Your task to perform on an android device: Open internet settings Image 0: 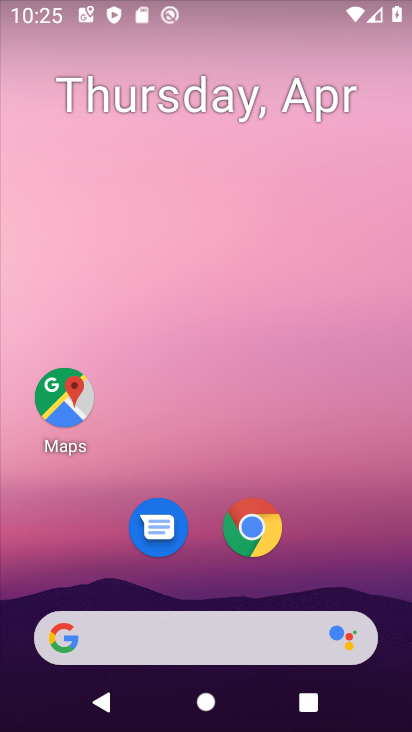
Step 0: drag from (331, 533) to (345, 90)
Your task to perform on an android device: Open internet settings Image 1: 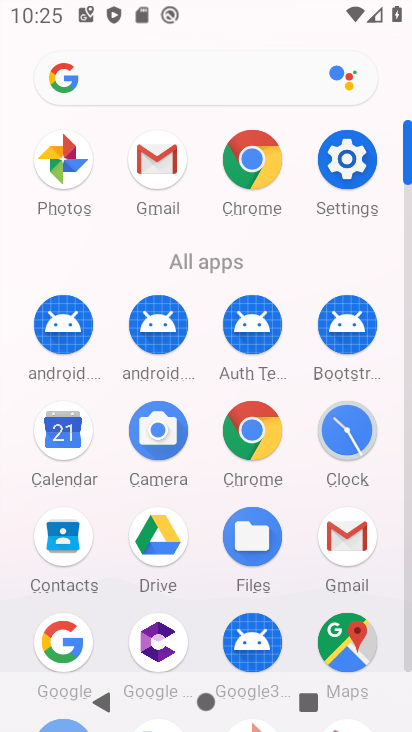
Step 1: click (348, 167)
Your task to perform on an android device: Open internet settings Image 2: 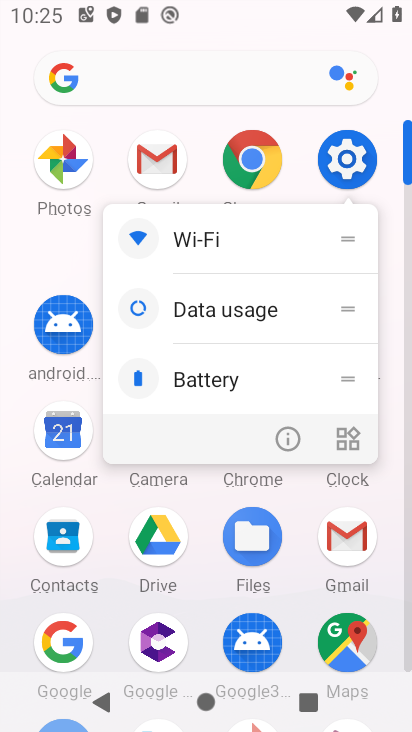
Step 2: click (348, 167)
Your task to perform on an android device: Open internet settings Image 3: 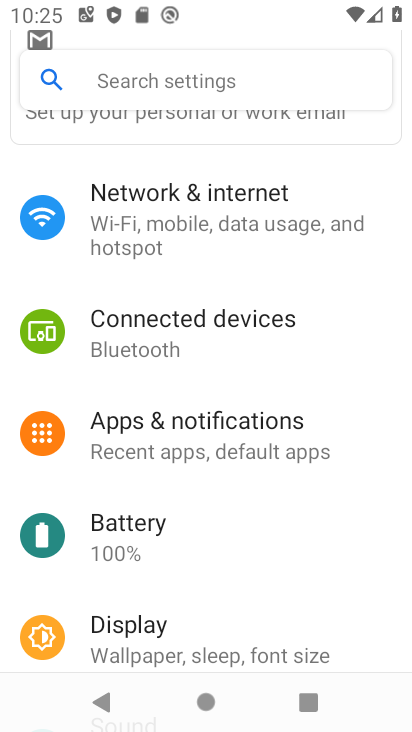
Step 3: drag from (232, 272) to (205, 639)
Your task to perform on an android device: Open internet settings Image 4: 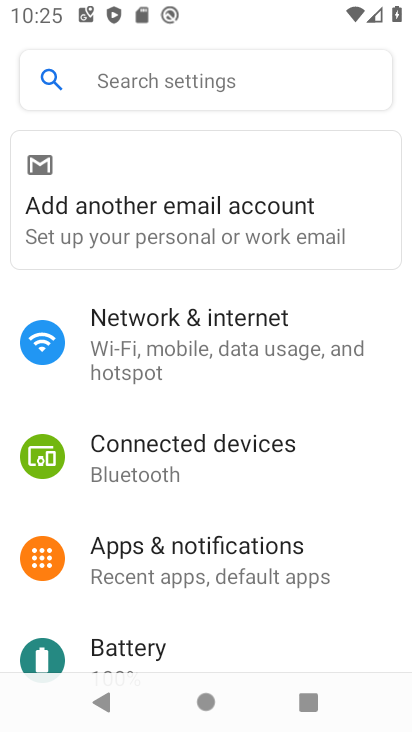
Step 4: drag from (258, 485) to (268, 633)
Your task to perform on an android device: Open internet settings Image 5: 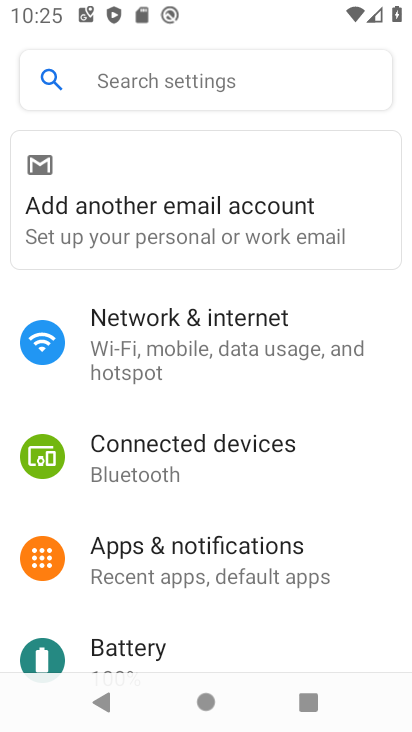
Step 5: click (179, 354)
Your task to perform on an android device: Open internet settings Image 6: 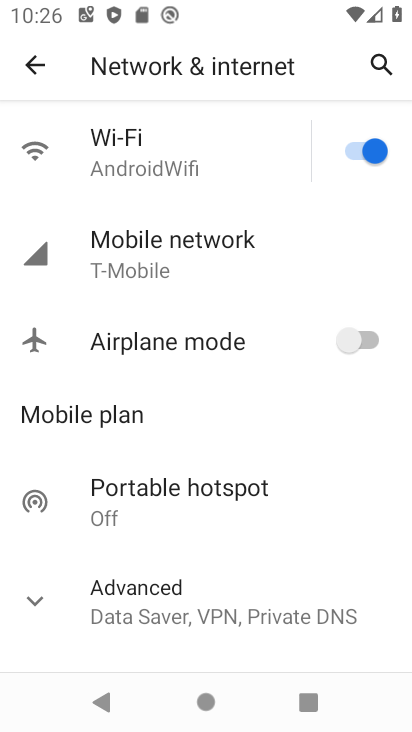
Step 6: drag from (290, 669) to (241, 246)
Your task to perform on an android device: Open internet settings Image 7: 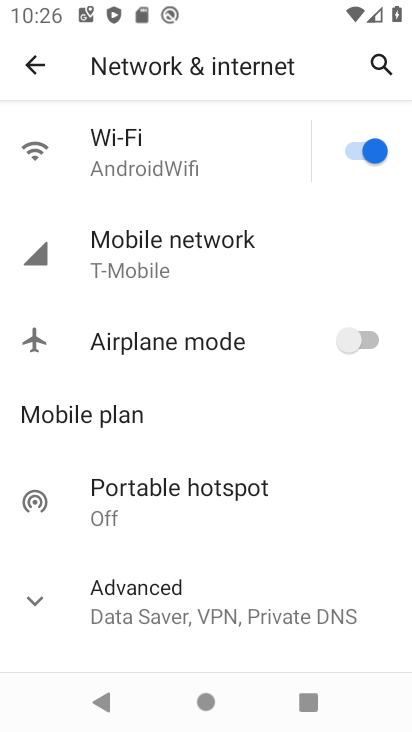
Step 7: click (124, 262)
Your task to perform on an android device: Open internet settings Image 8: 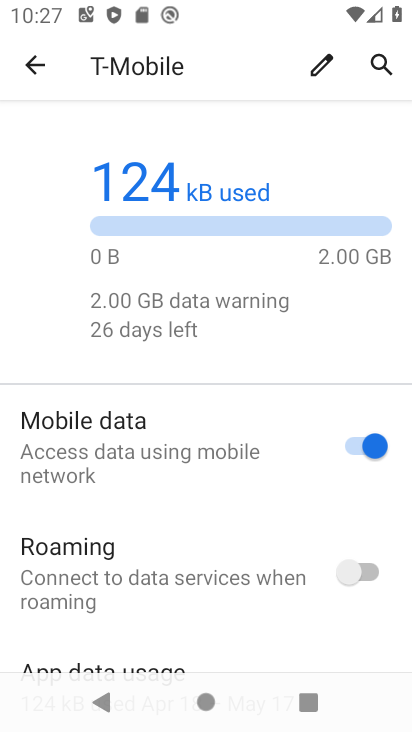
Step 8: task complete